Your task to perform on an android device: Open the calendar app, open the side menu, and click the "Day" option Image 0: 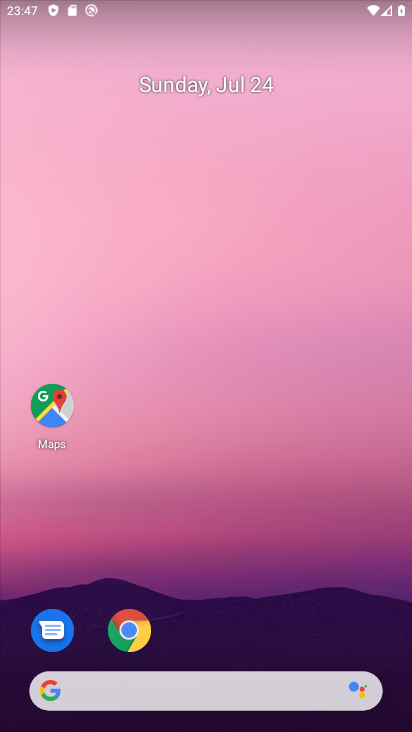
Step 0: press home button
Your task to perform on an android device: Open the calendar app, open the side menu, and click the "Day" option Image 1: 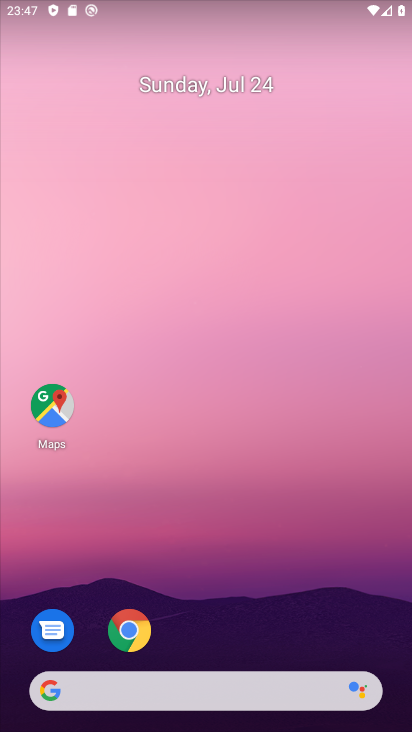
Step 1: drag from (267, 117) to (275, 73)
Your task to perform on an android device: Open the calendar app, open the side menu, and click the "Day" option Image 2: 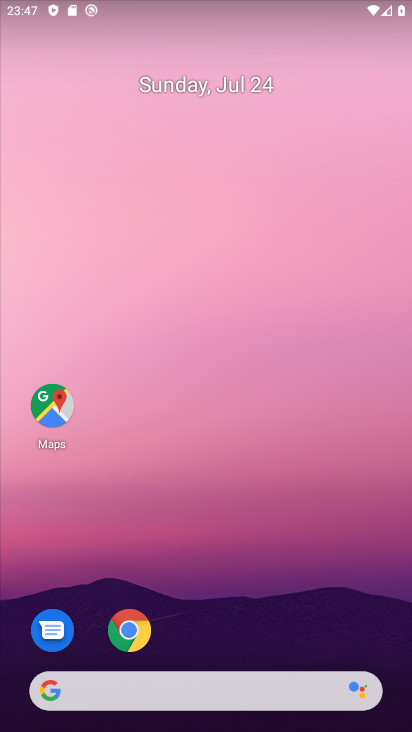
Step 2: click (278, 110)
Your task to perform on an android device: Open the calendar app, open the side menu, and click the "Day" option Image 3: 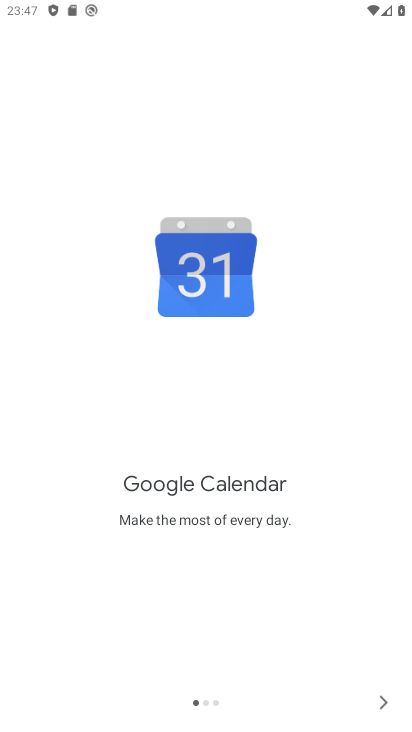
Step 3: click (387, 703)
Your task to perform on an android device: Open the calendar app, open the side menu, and click the "Day" option Image 4: 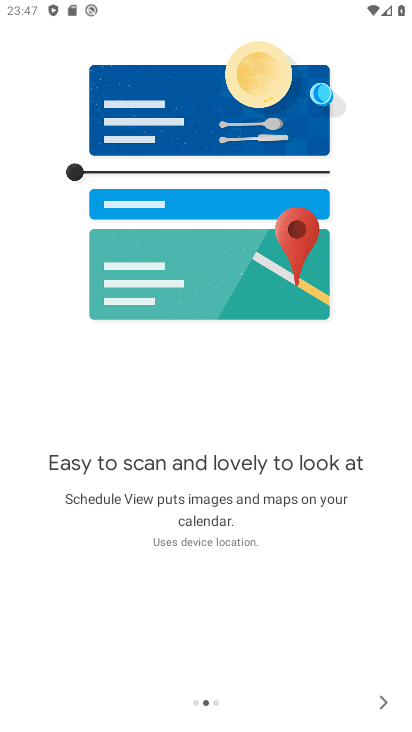
Step 4: click (387, 703)
Your task to perform on an android device: Open the calendar app, open the side menu, and click the "Day" option Image 5: 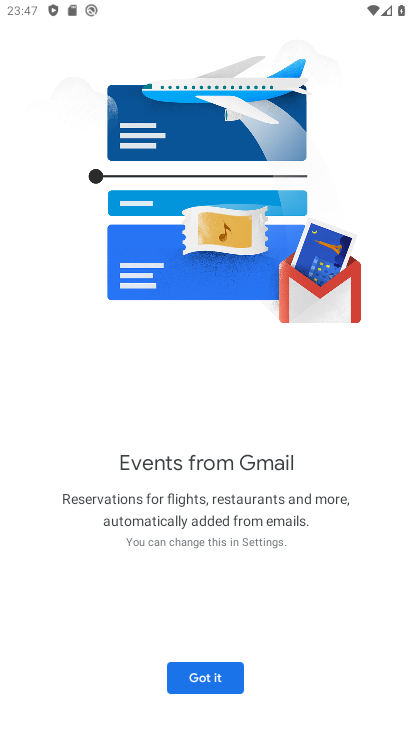
Step 5: click (387, 703)
Your task to perform on an android device: Open the calendar app, open the side menu, and click the "Day" option Image 6: 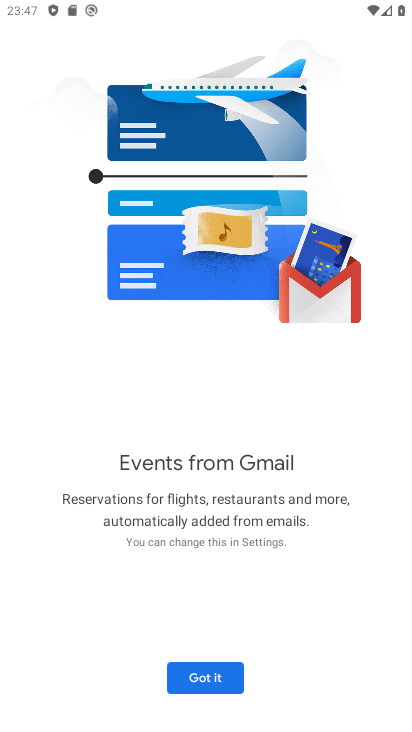
Step 6: click (387, 703)
Your task to perform on an android device: Open the calendar app, open the side menu, and click the "Day" option Image 7: 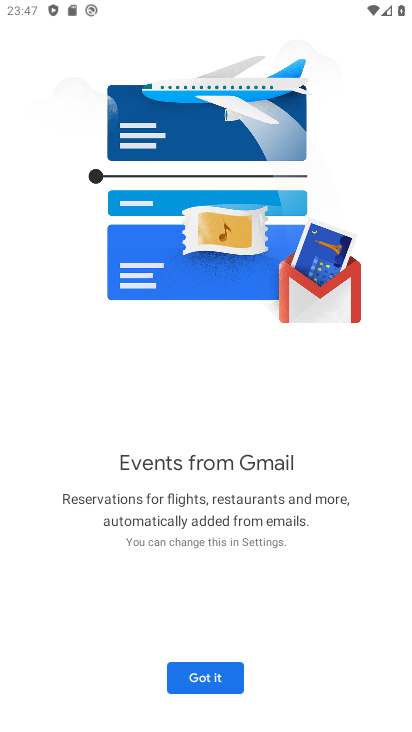
Step 7: click (211, 686)
Your task to perform on an android device: Open the calendar app, open the side menu, and click the "Day" option Image 8: 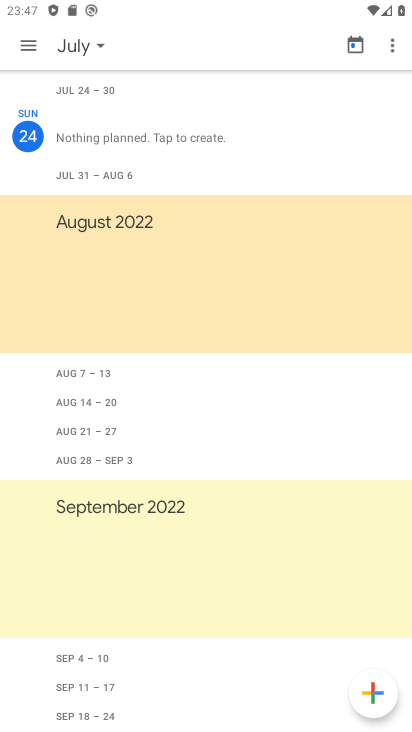
Step 8: click (32, 40)
Your task to perform on an android device: Open the calendar app, open the side menu, and click the "Day" option Image 9: 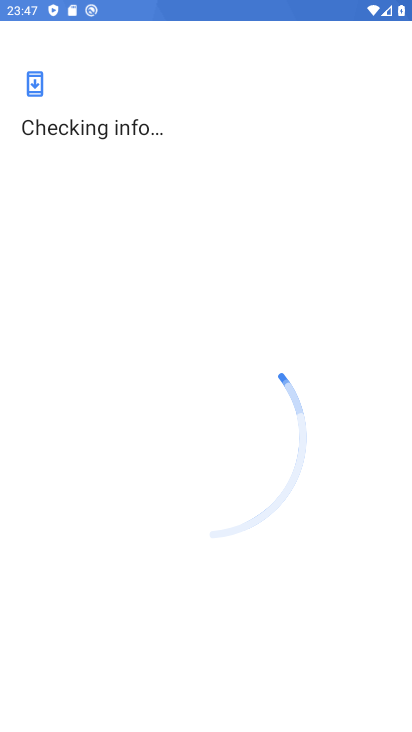
Step 9: press back button
Your task to perform on an android device: Open the calendar app, open the side menu, and click the "Day" option Image 10: 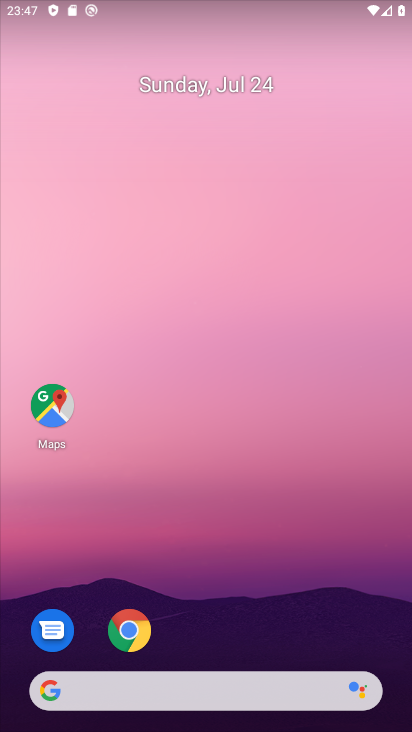
Step 10: click (240, 42)
Your task to perform on an android device: Open the calendar app, open the side menu, and click the "Day" option Image 11: 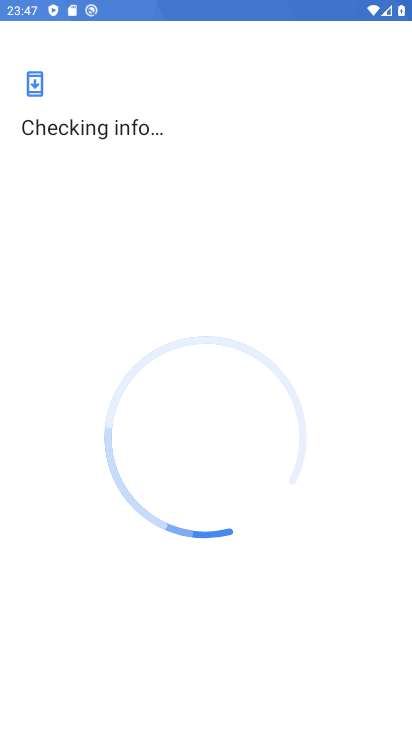
Step 11: click (24, 48)
Your task to perform on an android device: Open the calendar app, open the side menu, and click the "Day" option Image 12: 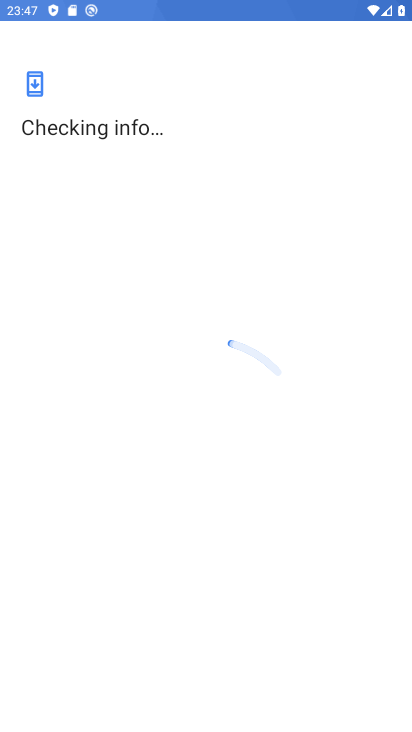
Step 12: press back button
Your task to perform on an android device: Open the calendar app, open the side menu, and click the "Day" option Image 13: 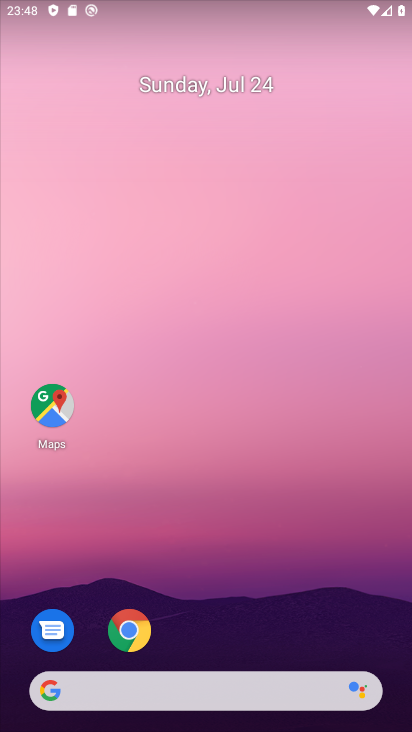
Step 13: press home button
Your task to perform on an android device: Open the calendar app, open the side menu, and click the "Day" option Image 14: 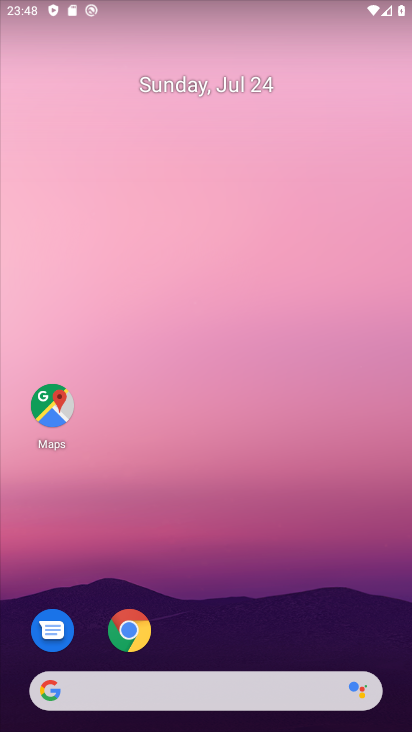
Step 14: press home button
Your task to perform on an android device: Open the calendar app, open the side menu, and click the "Day" option Image 15: 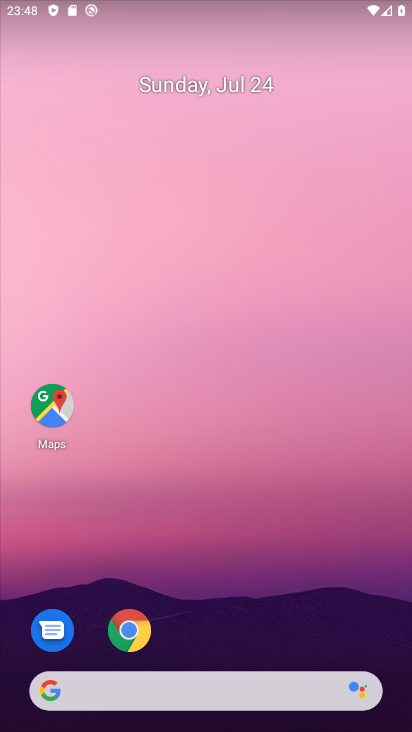
Step 15: drag from (236, 621) to (194, 10)
Your task to perform on an android device: Open the calendar app, open the side menu, and click the "Day" option Image 16: 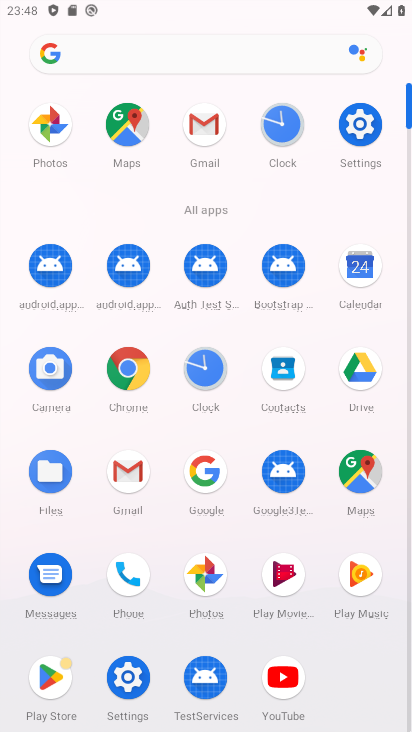
Step 16: click (364, 264)
Your task to perform on an android device: Open the calendar app, open the side menu, and click the "Day" option Image 17: 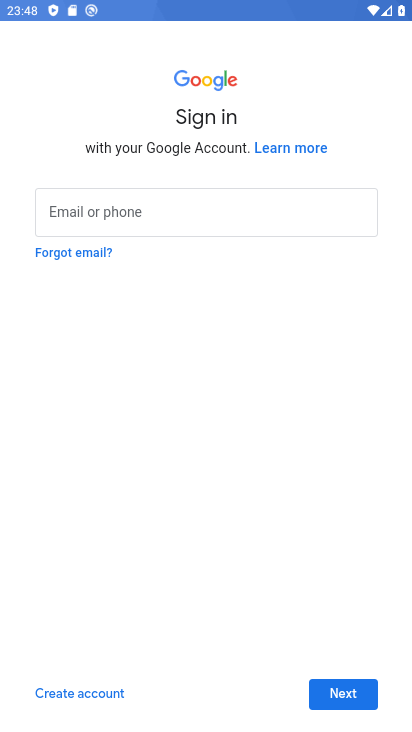
Step 17: task complete